Your task to perform on an android device: turn off sleep mode Image 0: 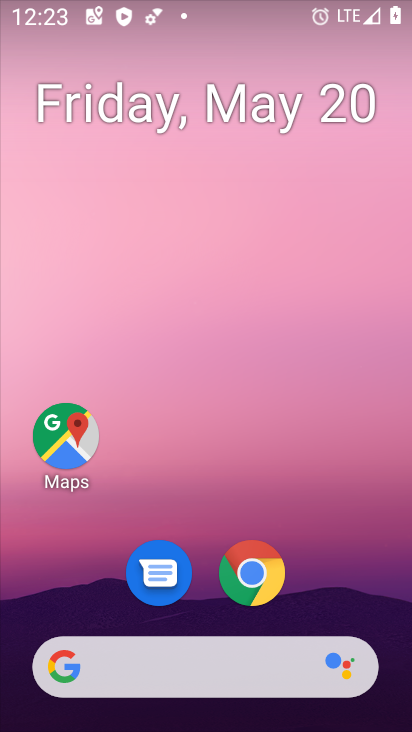
Step 0: drag from (323, 575) to (343, 55)
Your task to perform on an android device: turn off sleep mode Image 1: 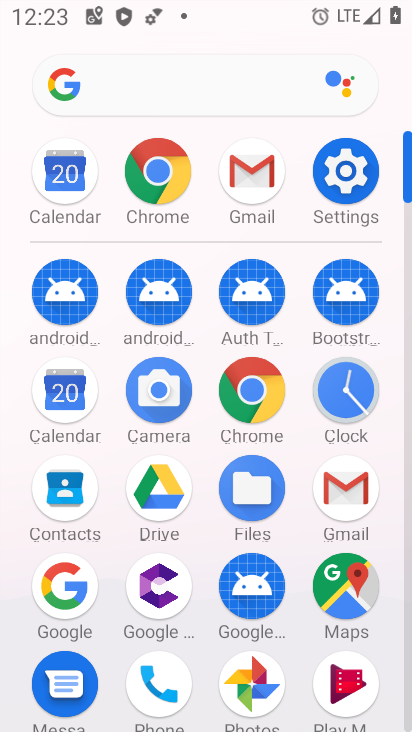
Step 1: click (346, 172)
Your task to perform on an android device: turn off sleep mode Image 2: 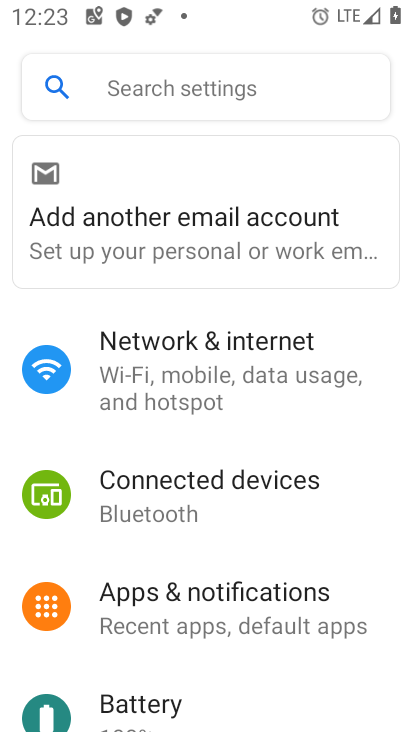
Step 2: drag from (251, 563) to (252, 139)
Your task to perform on an android device: turn off sleep mode Image 3: 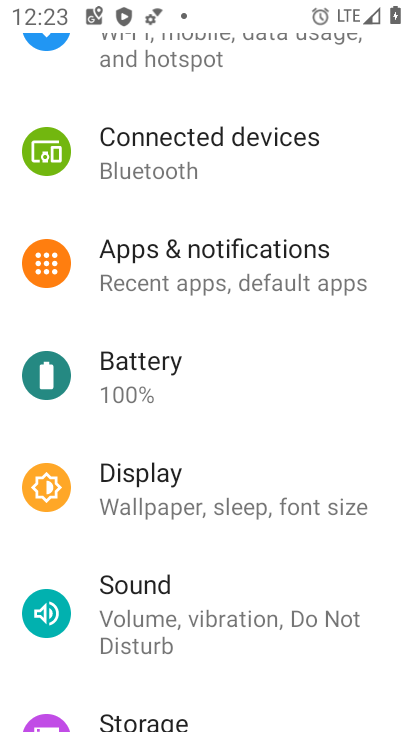
Step 3: click (214, 479)
Your task to perform on an android device: turn off sleep mode Image 4: 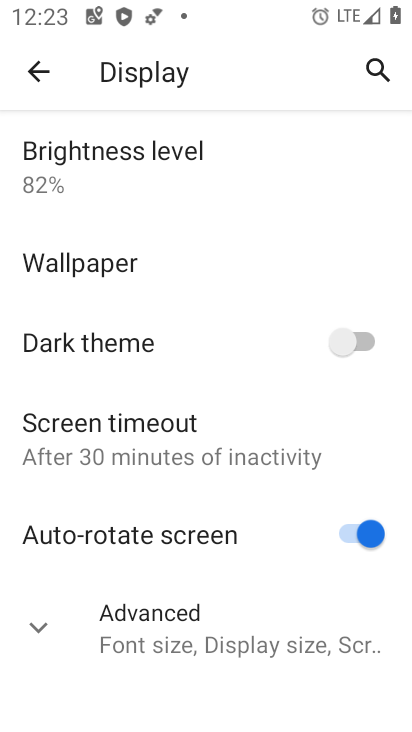
Step 4: click (150, 437)
Your task to perform on an android device: turn off sleep mode Image 5: 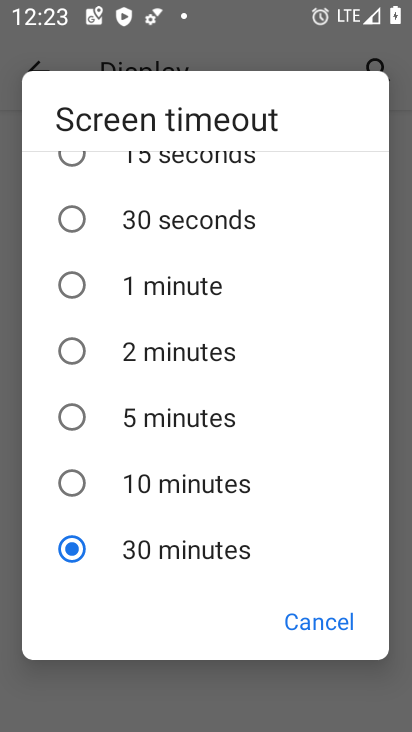
Step 5: task complete